Your task to perform on an android device: Set the phone to "Do not disturb". Image 0: 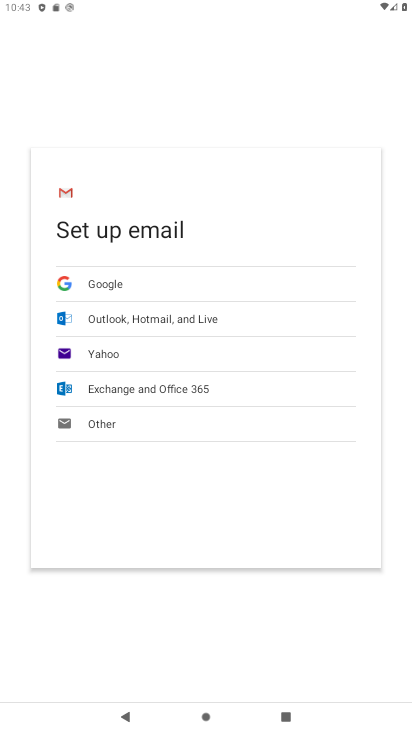
Step 0: press home button
Your task to perform on an android device: Set the phone to "Do not disturb". Image 1: 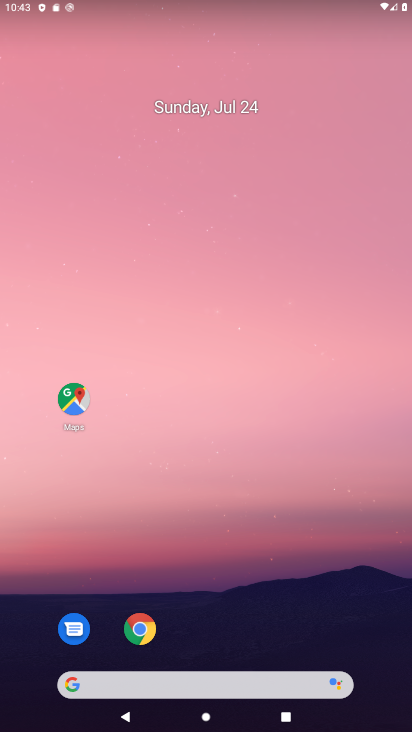
Step 1: drag from (213, 639) to (213, 12)
Your task to perform on an android device: Set the phone to "Do not disturb". Image 2: 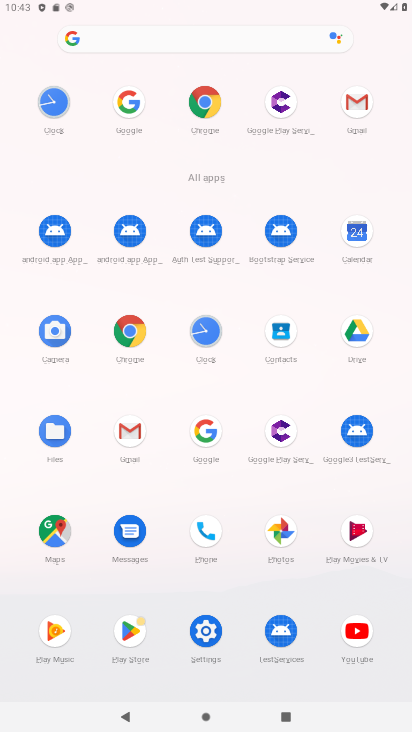
Step 2: click (211, 644)
Your task to perform on an android device: Set the phone to "Do not disturb". Image 3: 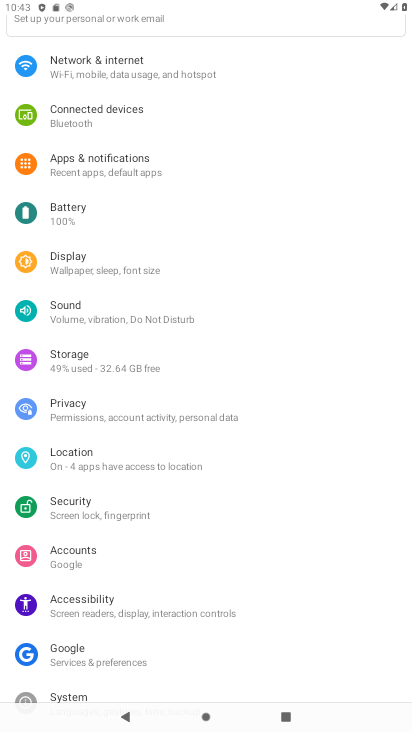
Step 3: click (140, 322)
Your task to perform on an android device: Set the phone to "Do not disturb". Image 4: 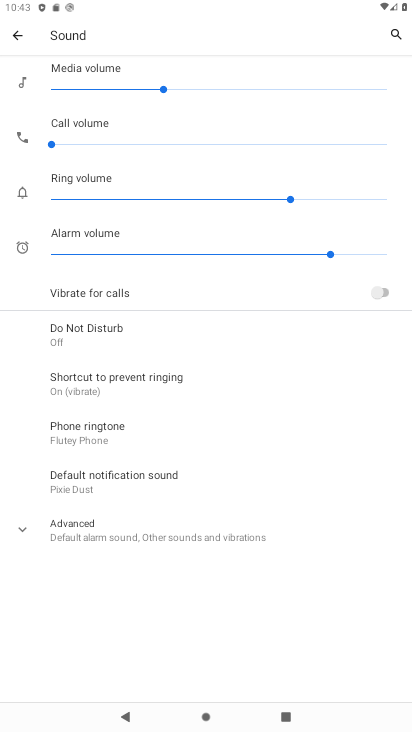
Step 4: click (59, 340)
Your task to perform on an android device: Set the phone to "Do not disturb". Image 5: 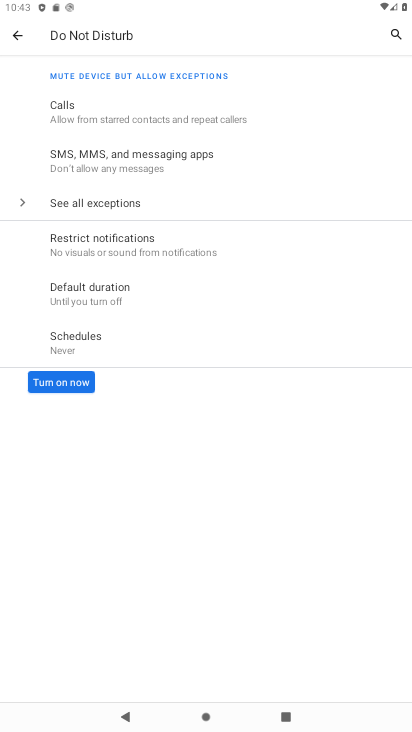
Step 5: click (49, 380)
Your task to perform on an android device: Set the phone to "Do not disturb". Image 6: 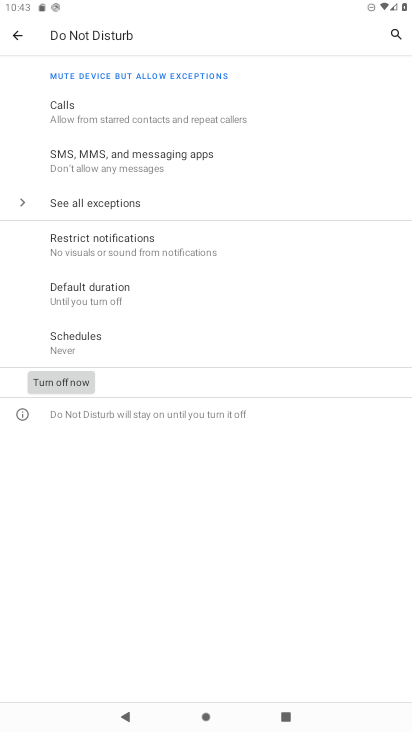
Step 6: task complete